Your task to perform on an android device: What's on my calendar today? Image 0: 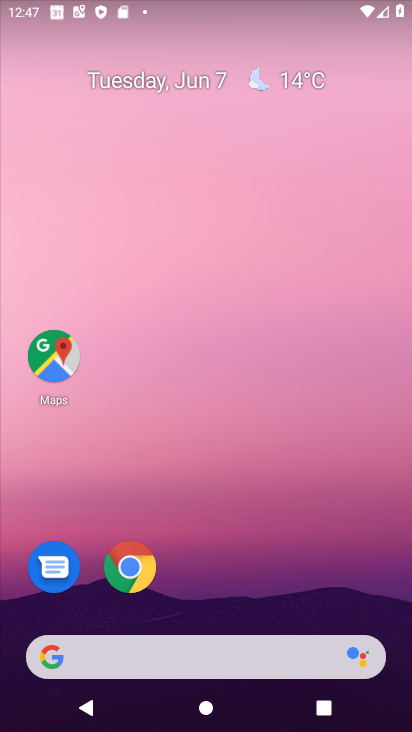
Step 0: drag from (296, 594) to (321, 4)
Your task to perform on an android device: What's on my calendar today? Image 1: 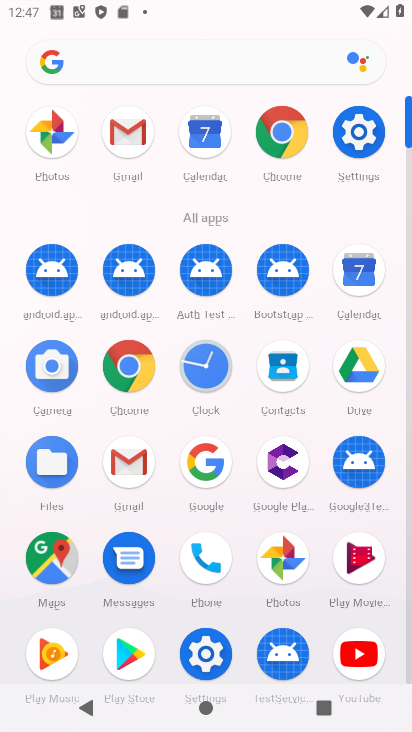
Step 1: click (204, 153)
Your task to perform on an android device: What's on my calendar today? Image 2: 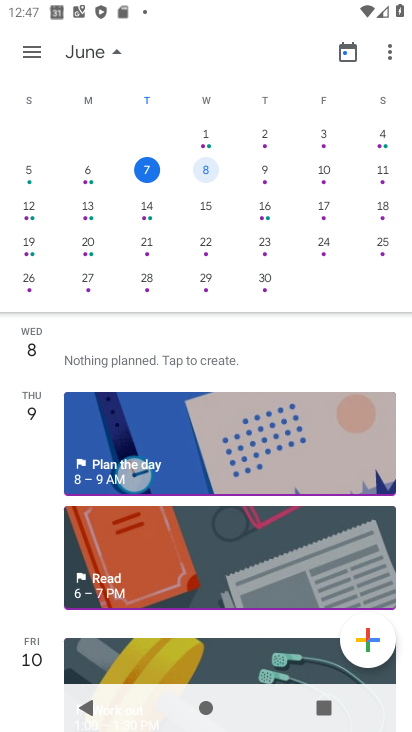
Step 2: click (139, 164)
Your task to perform on an android device: What's on my calendar today? Image 3: 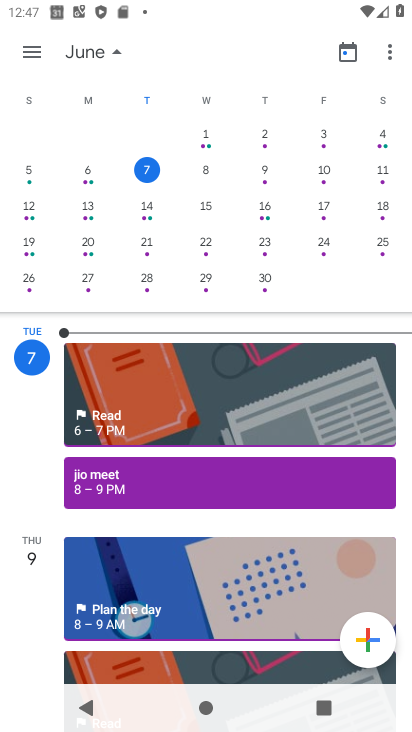
Step 3: task complete